Your task to perform on an android device: Go to location settings Image 0: 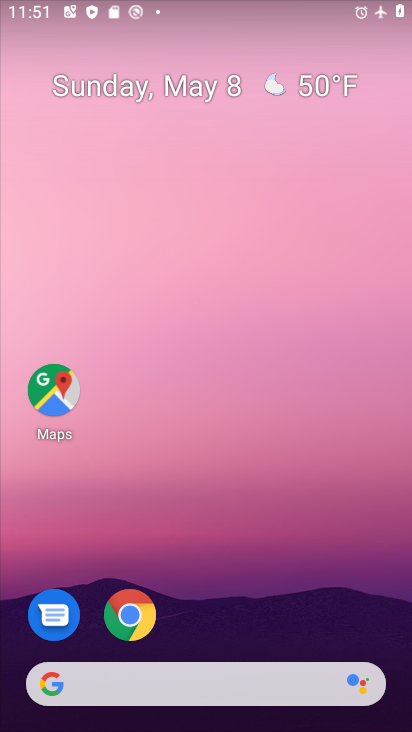
Step 0: drag from (278, 703) to (229, 229)
Your task to perform on an android device: Go to location settings Image 1: 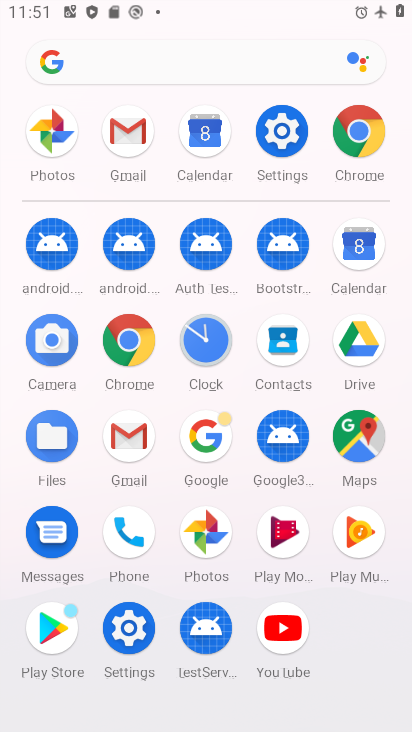
Step 1: click (270, 144)
Your task to perform on an android device: Go to location settings Image 2: 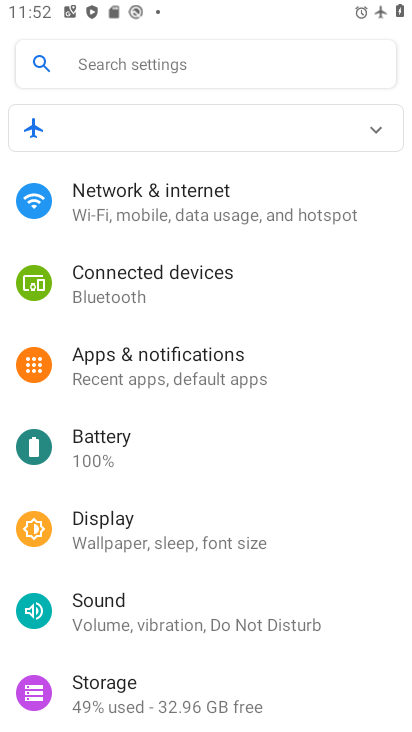
Step 2: click (184, 65)
Your task to perform on an android device: Go to location settings Image 3: 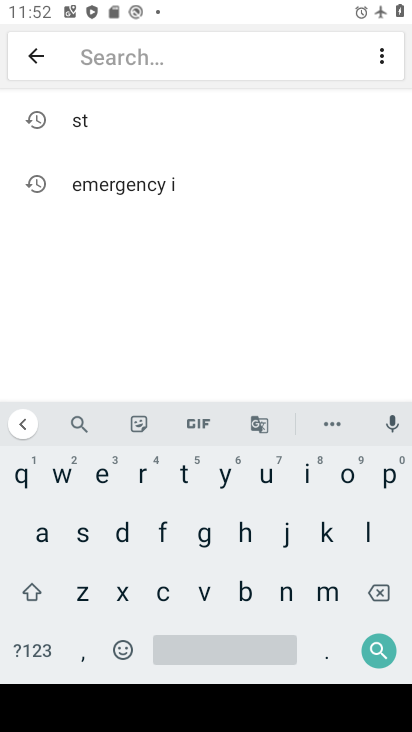
Step 3: click (366, 527)
Your task to perform on an android device: Go to location settings Image 4: 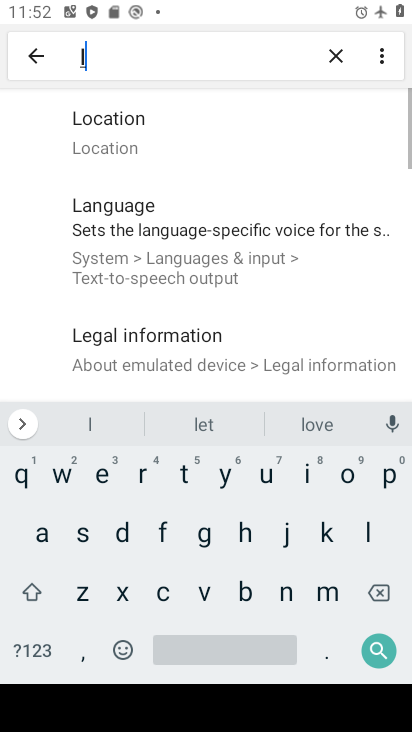
Step 4: click (345, 482)
Your task to perform on an android device: Go to location settings Image 5: 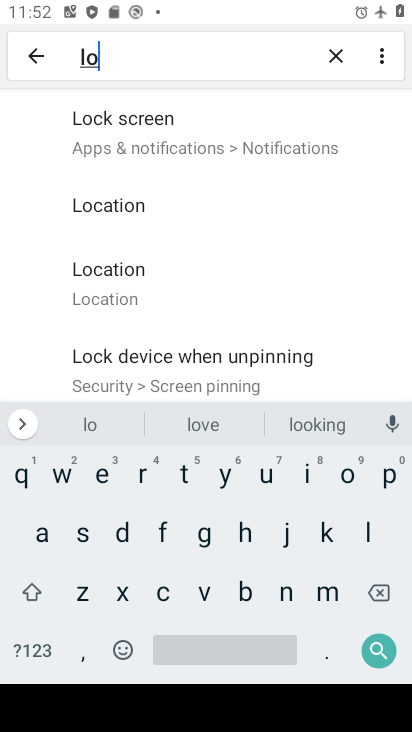
Step 5: click (143, 281)
Your task to perform on an android device: Go to location settings Image 6: 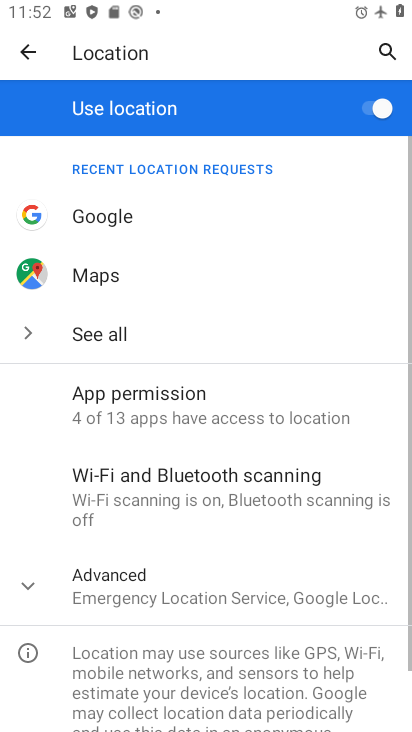
Step 6: task complete